Your task to perform on an android device: Show me productivity apps on the Play Store Image 0: 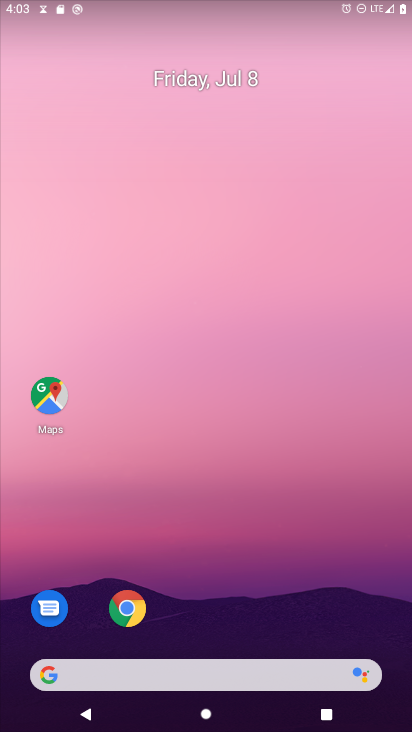
Step 0: drag from (305, 671) to (321, 0)
Your task to perform on an android device: Show me productivity apps on the Play Store Image 1: 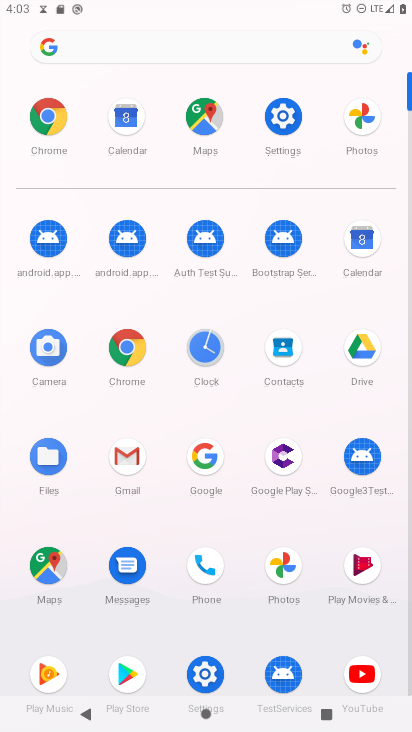
Step 1: drag from (226, 505) to (265, 183)
Your task to perform on an android device: Show me productivity apps on the Play Store Image 2: 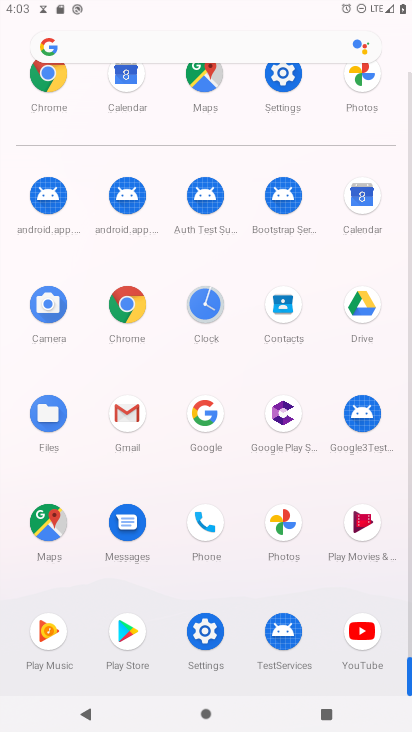
Step 2: click (124, 634)
Your task to perform on an android device: Show me productivity apps on the Play Store Image 3: 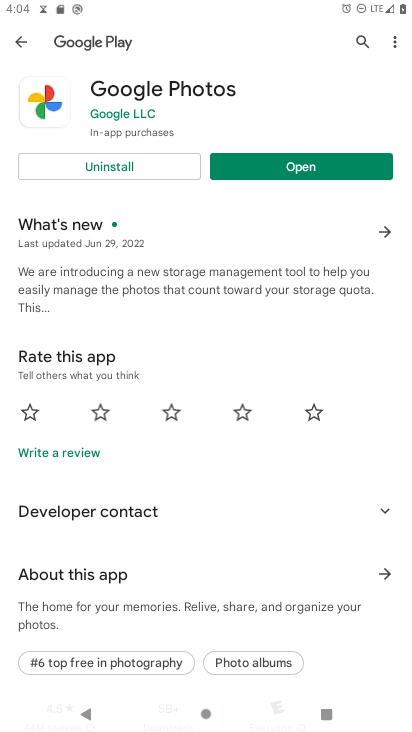
Step 3: press back button
Your task to perform on an android device: Show me productivity apps on the Play Store Image 4: 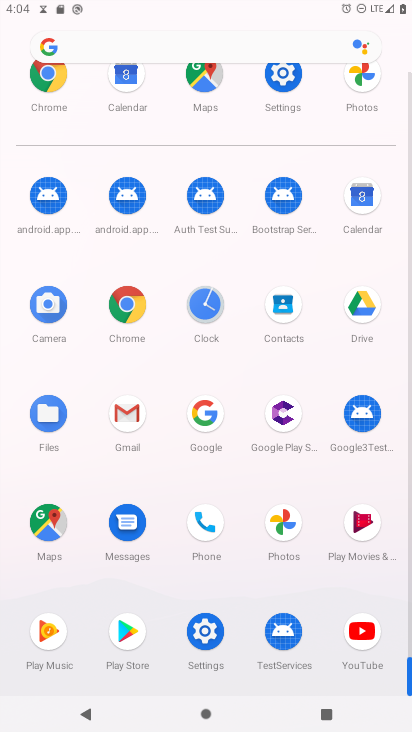
Step 4: click (129, 645)
Your task to perform on an android device: Show me productivity apps on the Play Store Image 5: 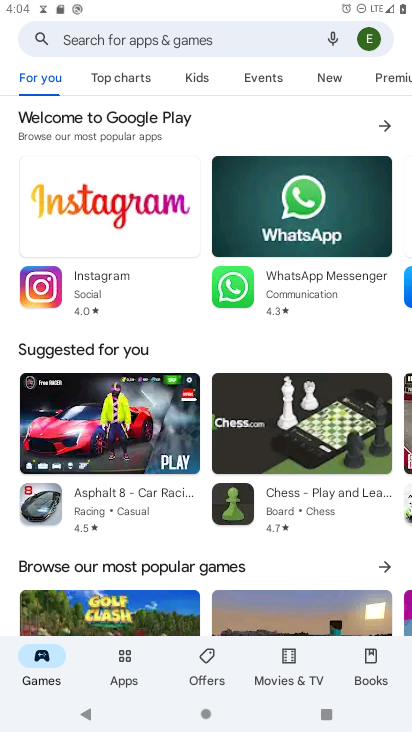
Step 5: drag from (189, 606) to (226, 195)
Your task to perform on an android device: Show me productivity apps on the Play Store Image 6: 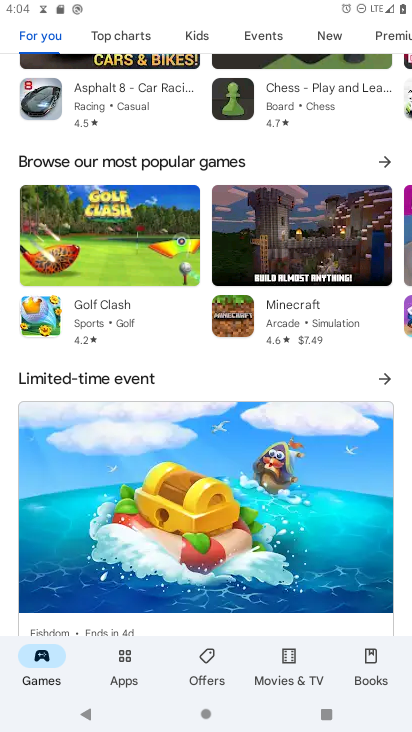
Step 6: drag from (217, 594) to (217, 171)
Your task to perform on an android device: Show me productivity apps on the Play Store Image 7: 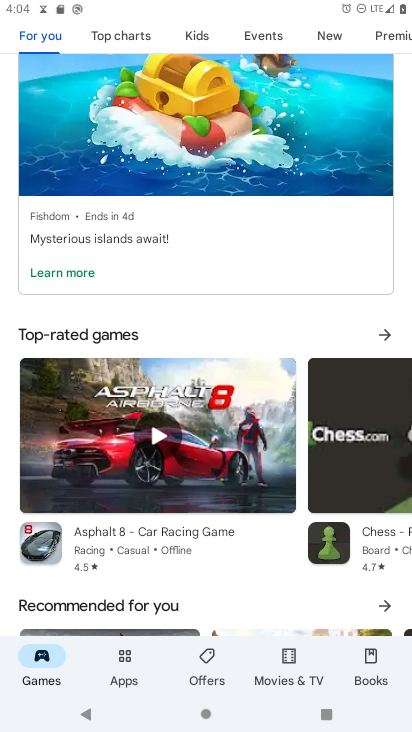
Step 7: drag from (244, 506) to (232, 245)
Your task to perform on an android device: Show me productivity apps on the Play Store Image 8: 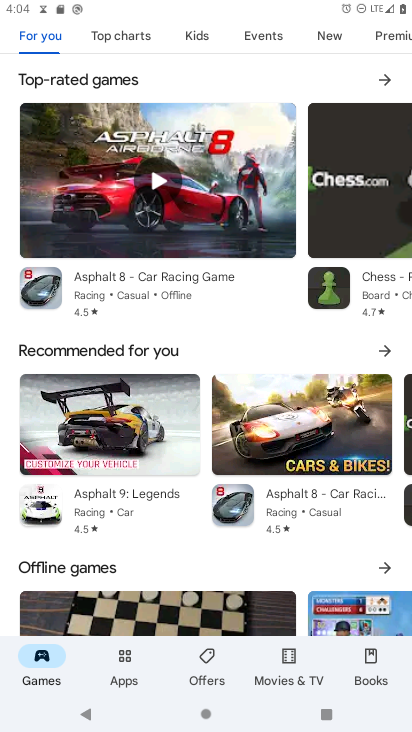
Step 8: click (132, 660)
Your task to perform on an android device: Show me productivity apps on the Play Store Image 9: 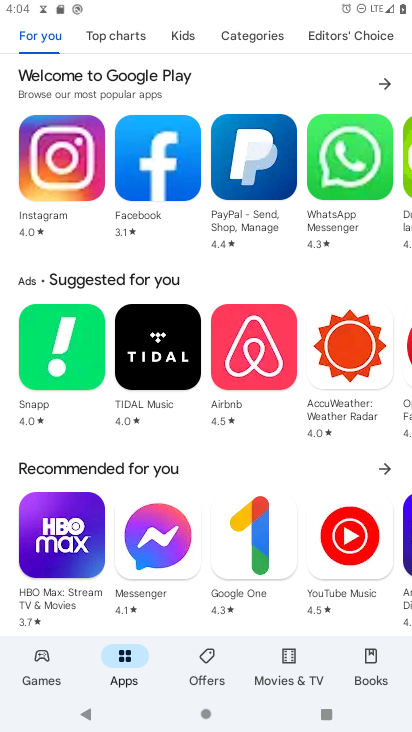
Step 9: drag from (202, 524) to (185, 15)
Your task to perform on an android device: Show me productivity apps on the Play Store Image 10: 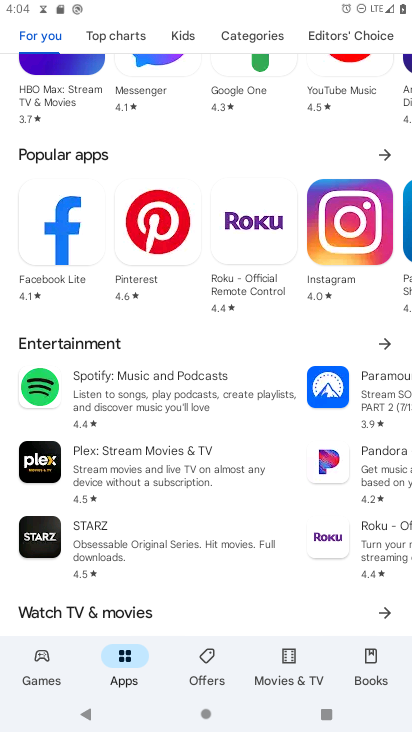
Step 10: drag from (199, 545) to (241, 71)
Your task to perform on an android device: Show me productivity apps on the Play Store Image 11: 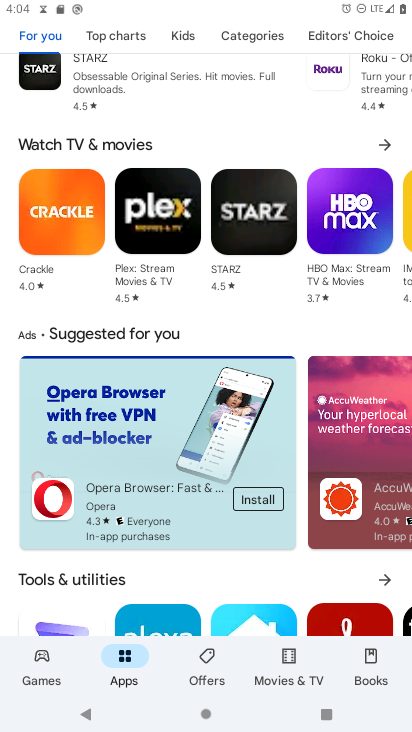
Step 11: drag from (170, 588) to (155, 153)
Your task to perform on an android device: Show me productivity apps on the Play Store Image 12: 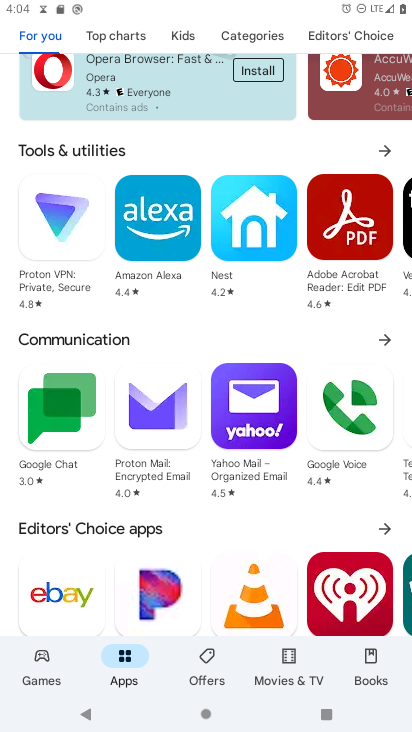
Step 12: drag from (173, 608) to (230, 156)
Your task to perform on an android device: Show me productivity apps on the Play Store Image 13: 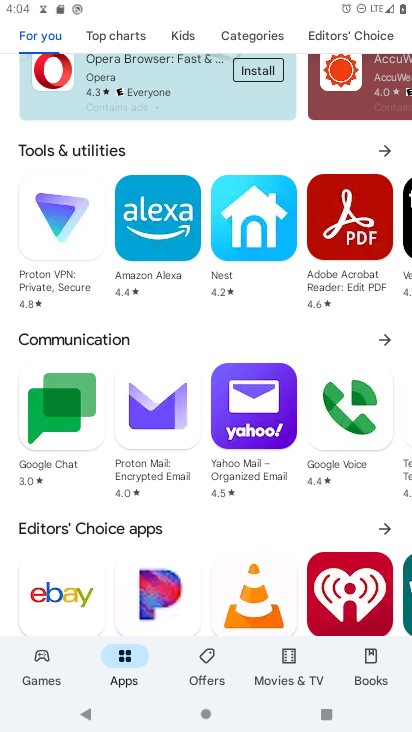
Step 13: drag from (203, 613) to (192, 167)
Your task to perform on an android device: Show me productivity apps on the Play Store Image 14: 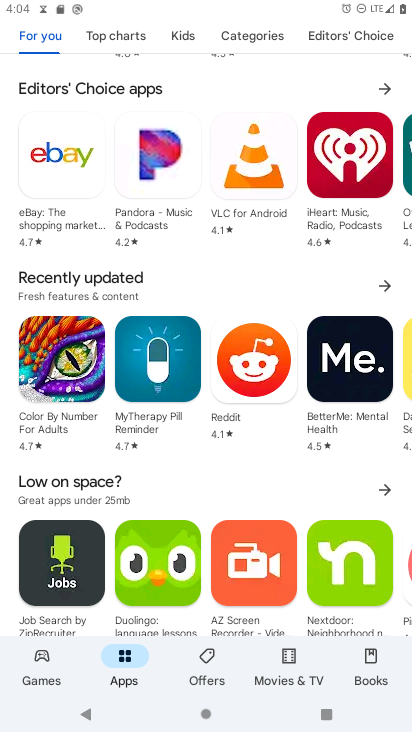
Step 14: drag from (191, 498) to (176, 12)
Your task to perform on an android device: Show me productivity apps on the Play Store Image 15: 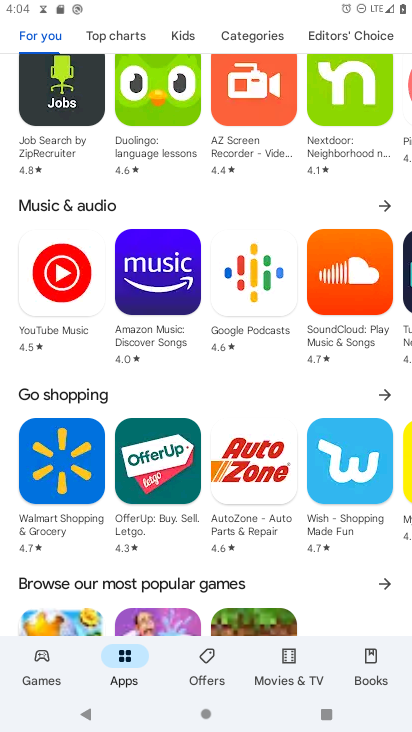
Step 15: drag from (180, 562) to (215, 206)
Your task to perform on an android device: Show me productivity apps on the Play Store Image 16: 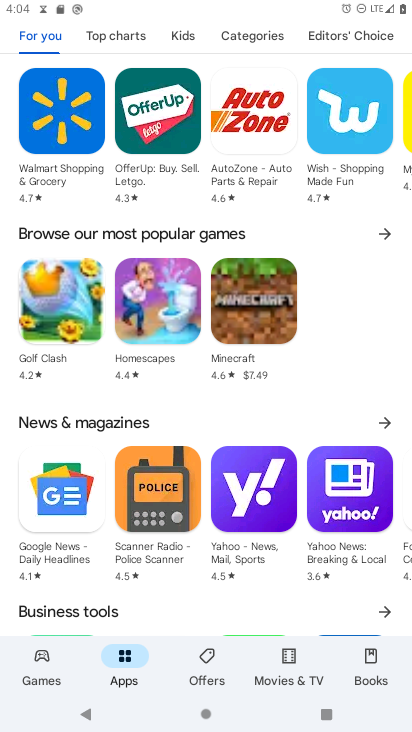
Step 16: drag from (201, 623) to (193, 230)
Your task to perform on an android device: Show me productivity apps on the Play Store Image 17: 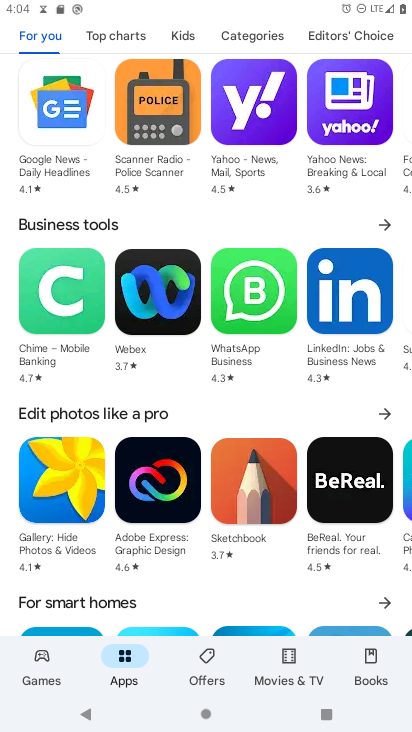
Step 17: drag from (241, 602) to (214, 141)
Your task to perform on an android device: Show me productivity apps on the Play Store Image 18: 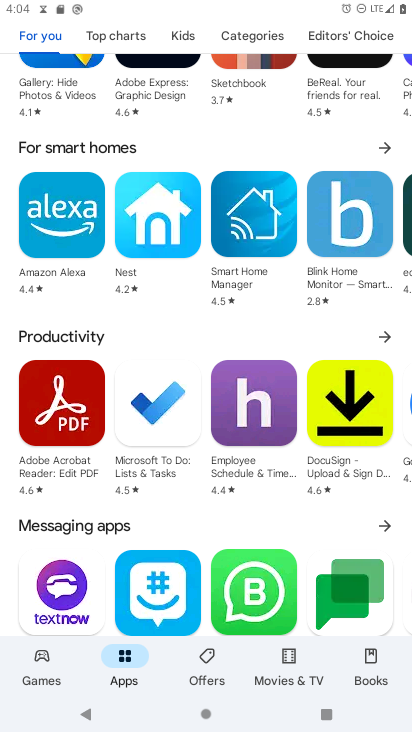
Step 18: click (382, 329)
Your task to perform on an android device: Show me productivity apps on the Play Store Image 19: 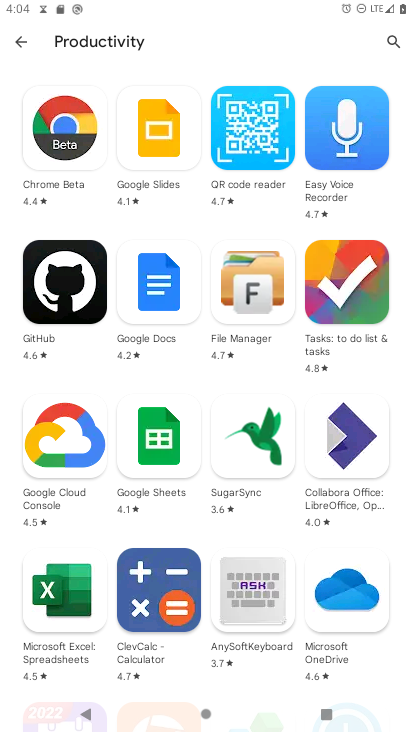
Step 19: task complete